Your task to perform on an android device: check storage Image 0: 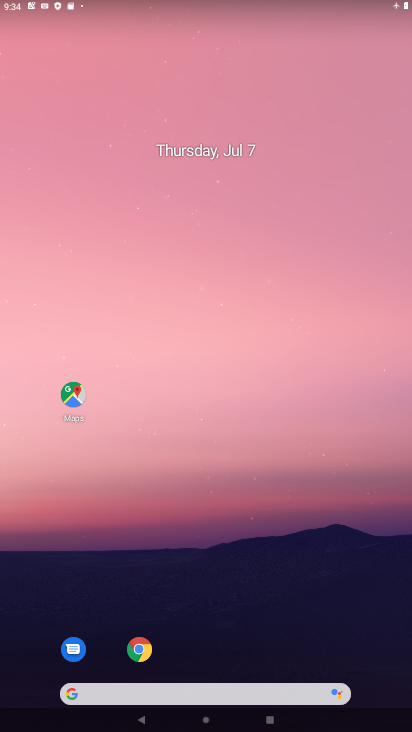
Step 0: drag from (230, 728) to (230, 206)
Your task to perform on an android device: check storage Image 1: 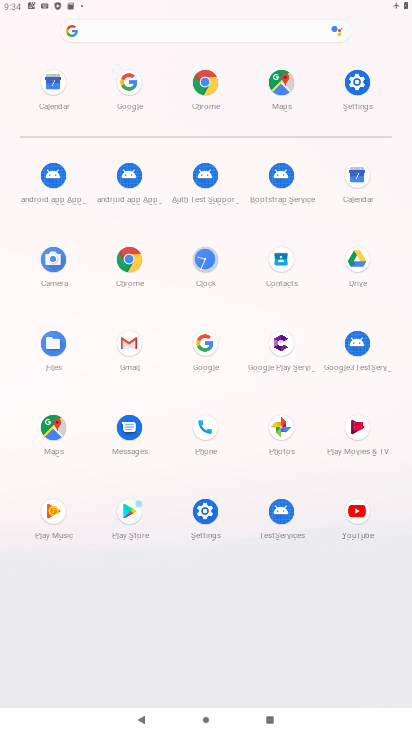
Step 1: click (360, 80)
Your task to perform on an android device: check storage Image 2: 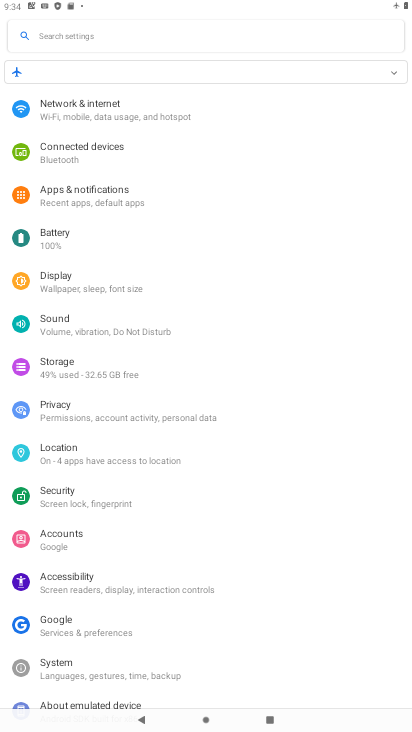
Step 2: click (46, 368)
Your task to perform on an android device: check storage Image 3: 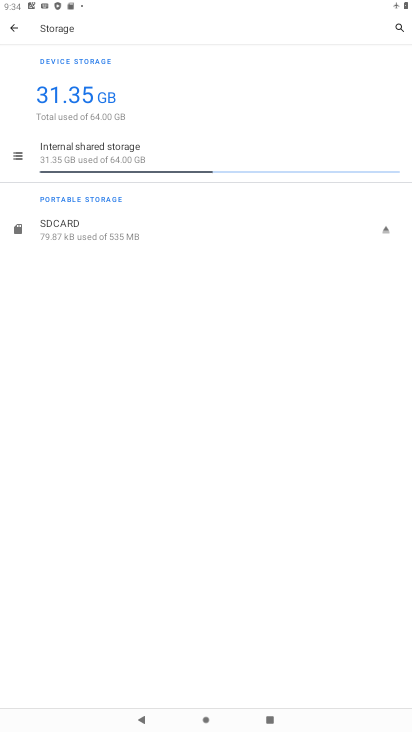
Step 3: task complete